Your task to perform on an android device: add a label to a message in the gmail app Image 0: 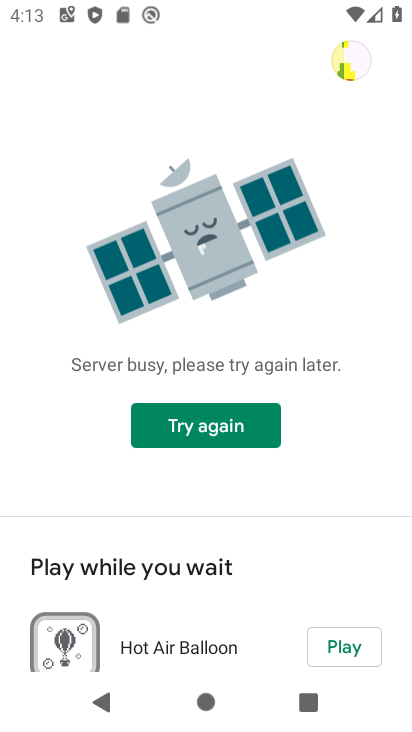
Step 0: press home button
Your task to perform on an android device: add a label to a message in the gmail app Image 1: 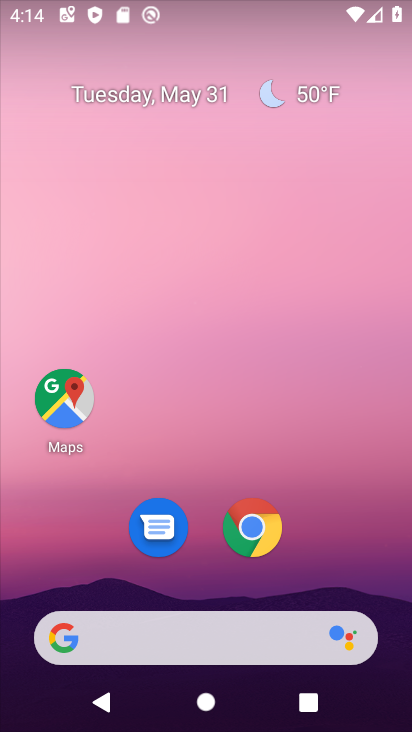
Step 1: drag from (360, 563) to (293, 77)
Your task to perform on an android device: add a label to a message in the gmail app Image 2: 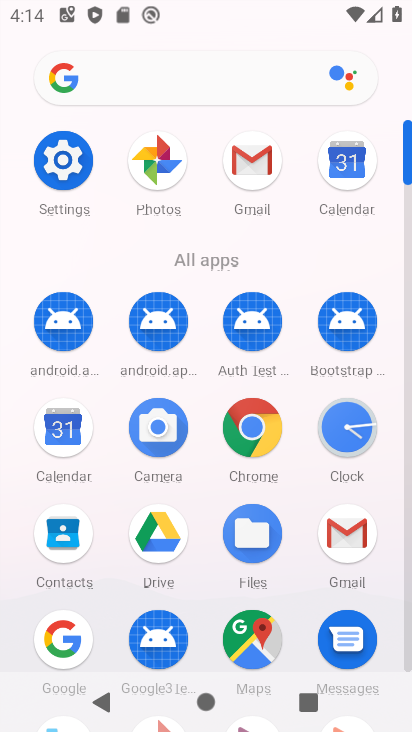
Step 2: click (266, 188)
Your task to perform on an android device: add a label to a message in the gmail app Image 3: 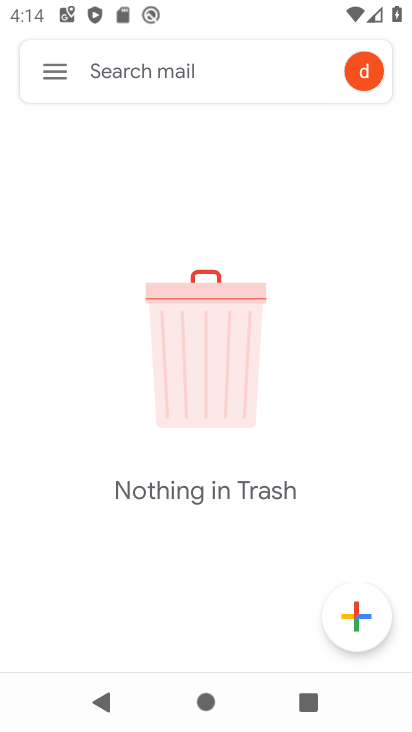
Step 3: click (47, 66)
Your task to perform on an android device: add a label to a message in the gmail app Image 4: 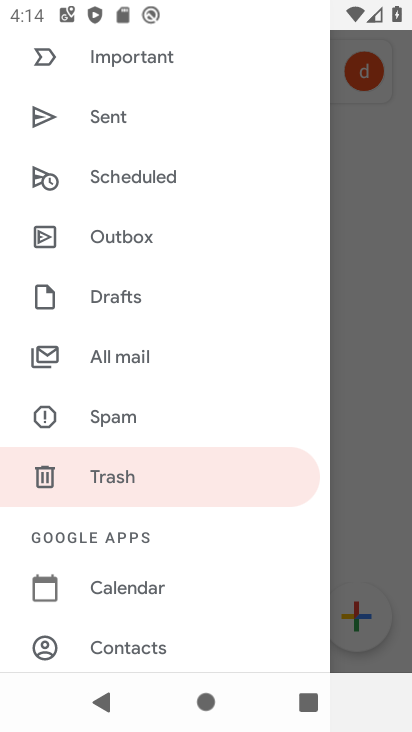
Step 4: click (147, 362)
Your task to perform on an android device: add a label to a message in the gmail app Image 5: 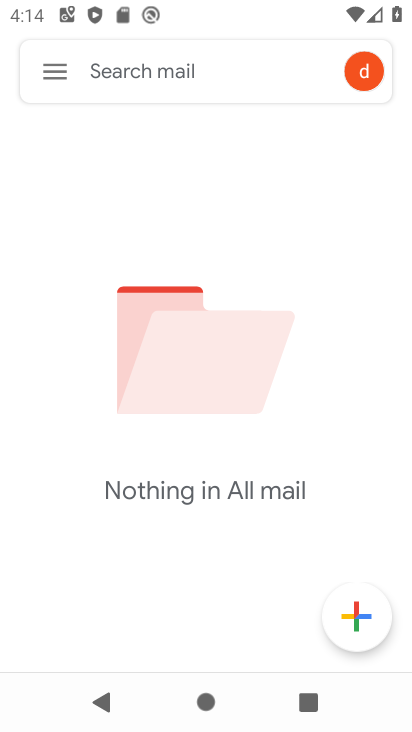
Step 5: task complete